Your task to perform on an android device: Open Chrome and go to settings Image 0: 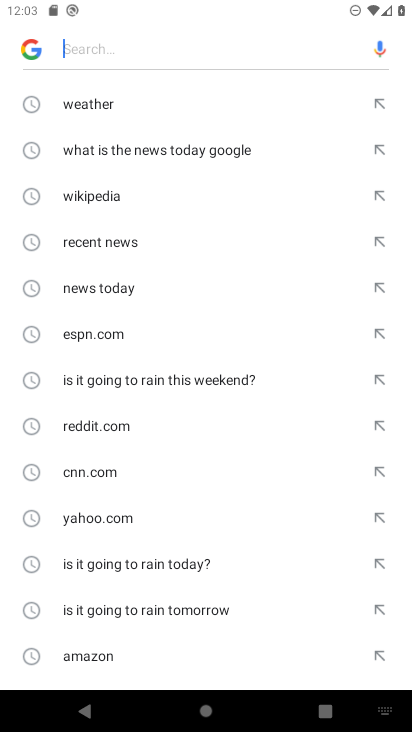
Step 0: press back button
Your task to perform on an android device: Open Chrome and go to settings Image 1: 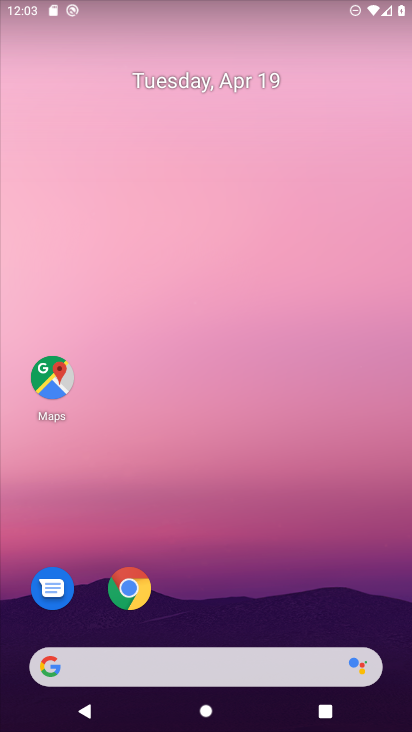
Step 1: drag from (251, 576) to (131, 16)
Your task to perform on an android device: Open Chrome and go to settings Image 2: 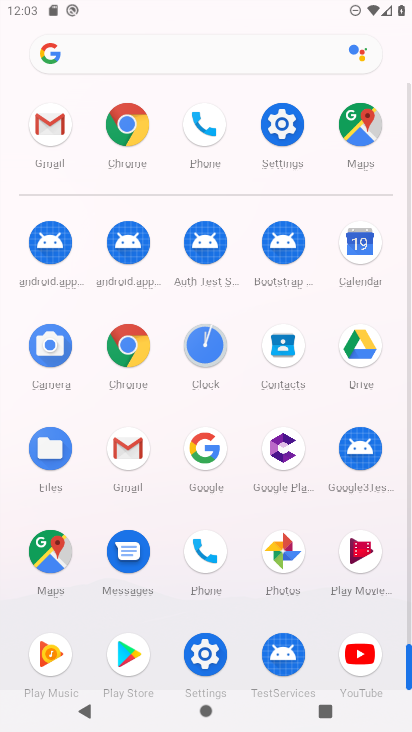
Step 2: click (127, 121)
Your task to perform on an android device: Open Chrome and go to settings Image 3: 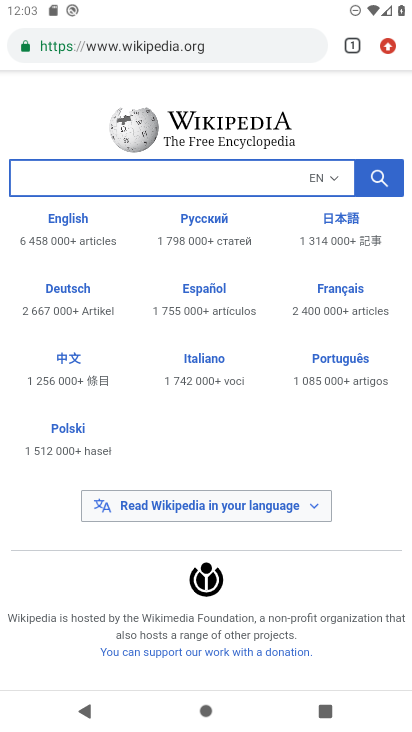
Step 3: task complete